Your task to perform on an android device: What's the weather today? Image 0: 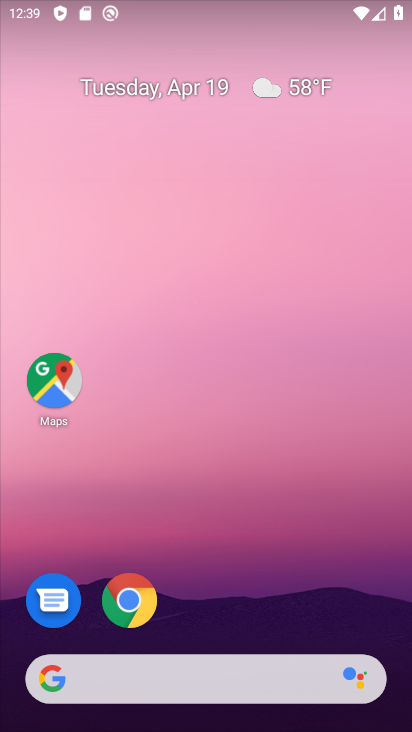
Step 0: drag from (237, 526) to (168, 219)
Your task to perform on an android device: What's the weather today? Image 1: 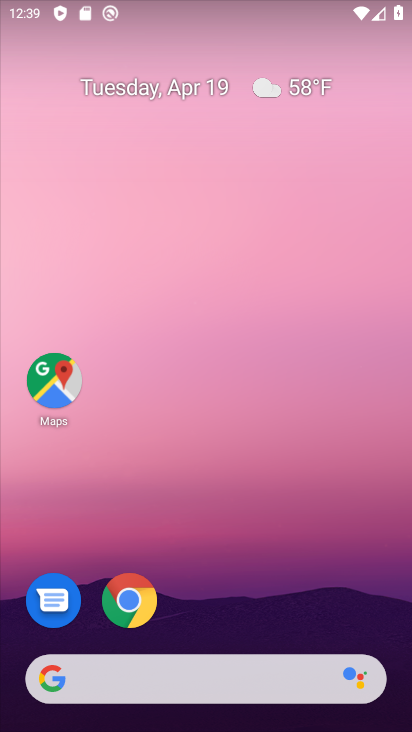
Step 1: drag from (343, 587) to (271, 99)
Your task to perform on an android device: What's the weather today? Image 2: 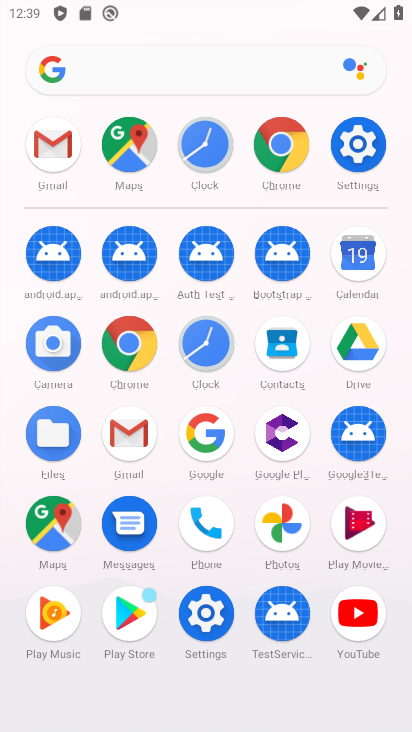
Step 2: click (290, 131)
Your task to perform on an android device: What's the weather today? Image 3: 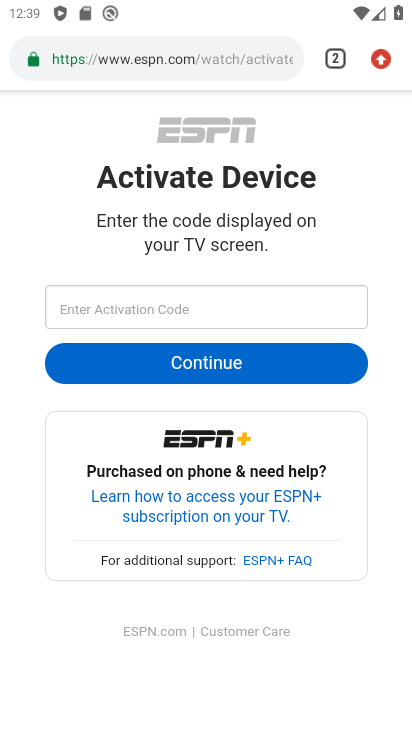
Step 3: drag from (220, 730) to (390, 720)
Your task to perform on an android device: What's the weather today? Image 4: 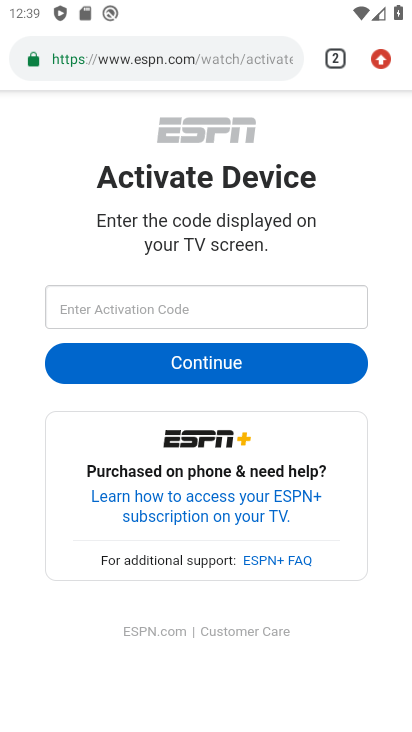
Step 4: click (228, 69)
Your task to perform on an android device: What's the weather today? Image 5: 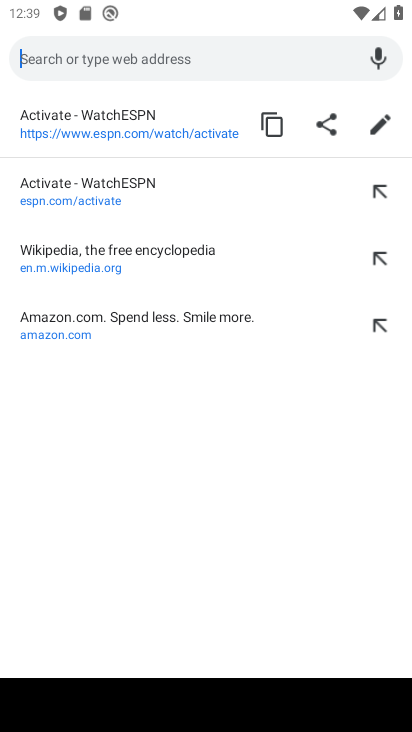
Step 5: type "What's the weather today?"
Your task to perform on an android device: What's the weather today? Image 6: 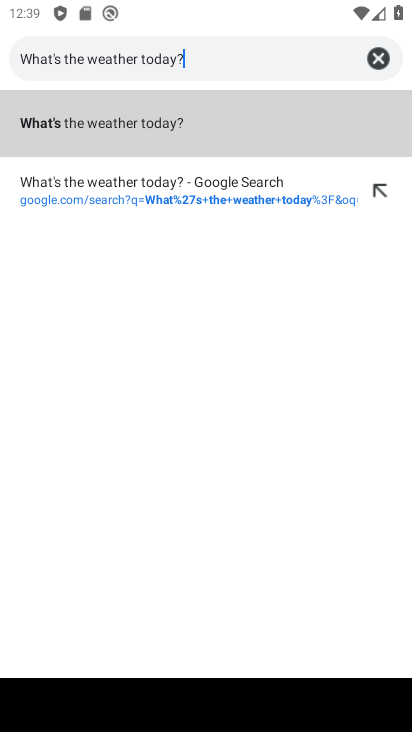
Step 6: click (243, 144)
Your task to perform on an android device: What's the weather today? Image 7: 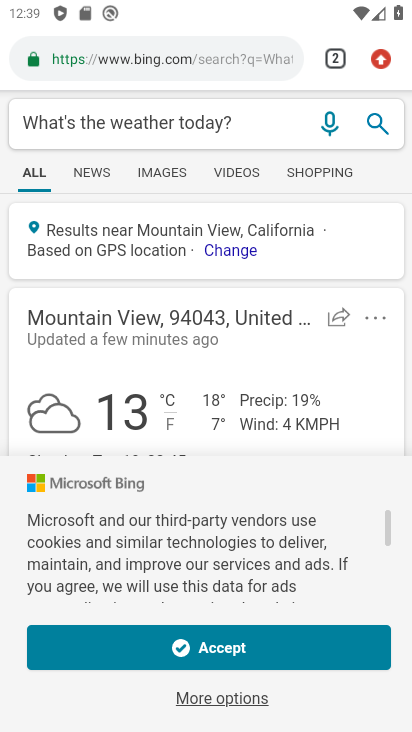
Step 7: task complete